Your task to perform on an android device: find snoozed emails in the gmail app Image 0: 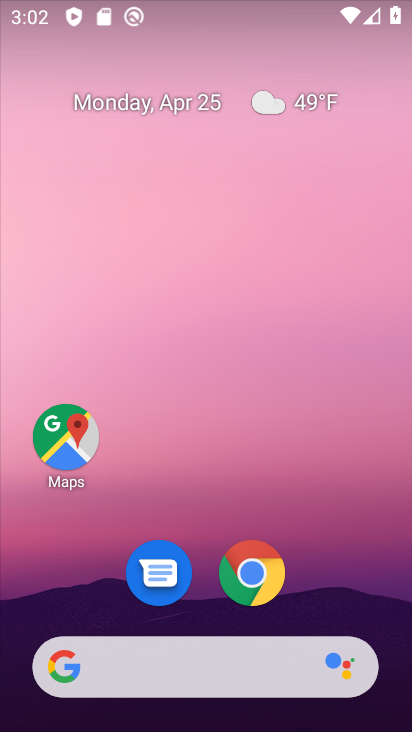
Step 0: drag from (341, 578) to (318, 7)
Your task to perform on an android device: find snoozed emails in the gmail app Image 1: 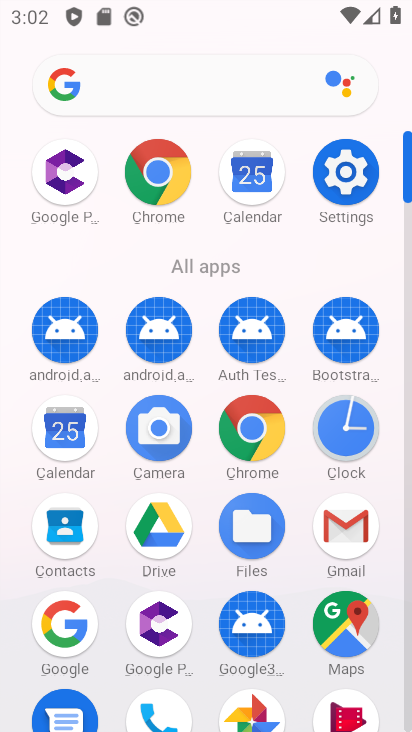
Step 1: click (343, 509)
Your task to perform on an android device: find snoozed emails in the gmail app Image 2: 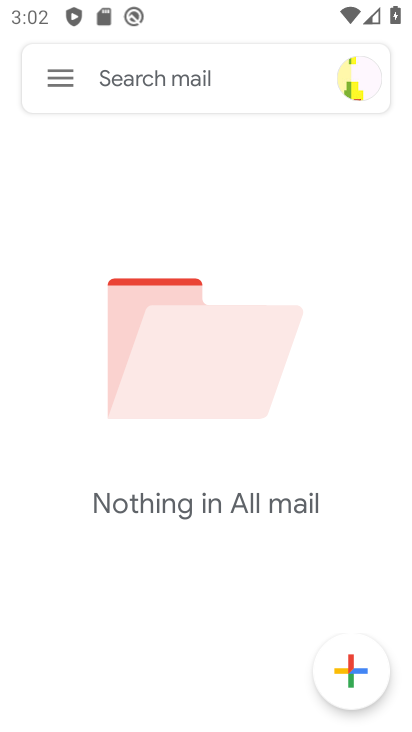
Step 2: click (70, 106)
Your task to perform on an android device: find snoozed emails in the gmail app Image 3: 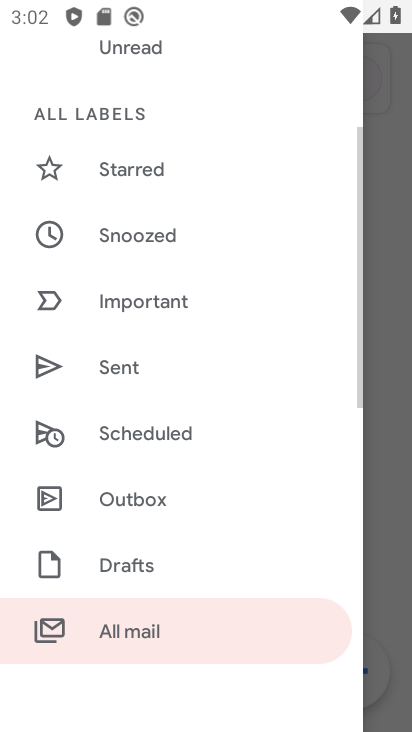
Step 3: click (162, 226)
Your task to perform on an android device: find snoozed emails in the gmail app Image 4: 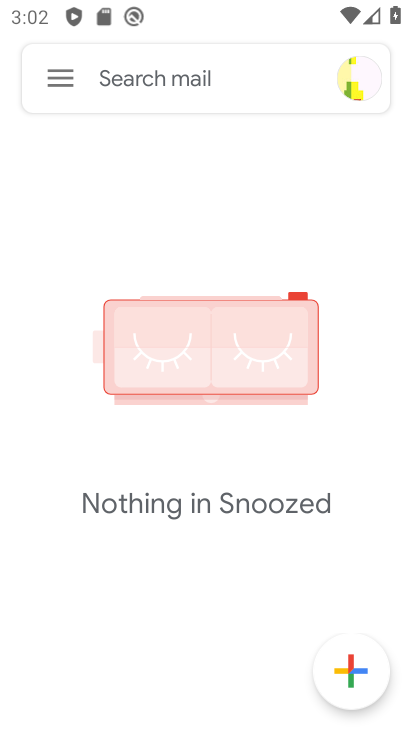
Step 4: task complete